Your task to perform on an android device: allow notifications from all sites in the chrome app Image 0: 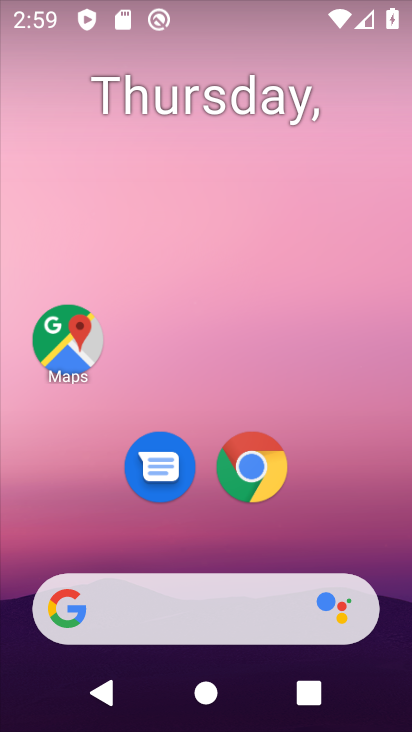
Step 0: drag from (225, 572) to (217, 137)
Your task to perform on an android device: allow notifications from all sites in the chrome app Image 1: 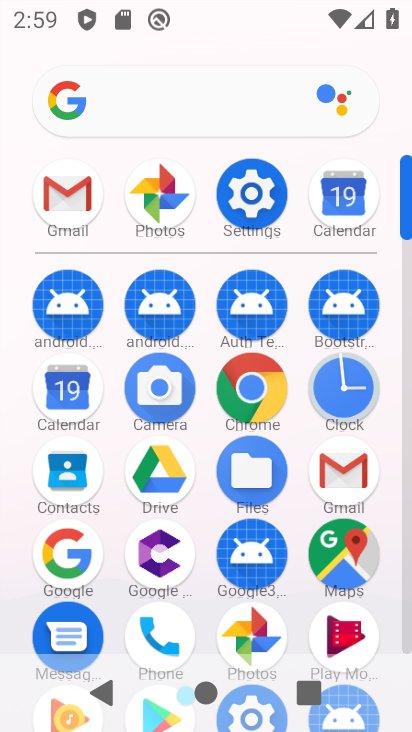
Step 1: click (265, 387)
Your task to perform on an android device: allow notifications from all sites in the chrome app Image 2: 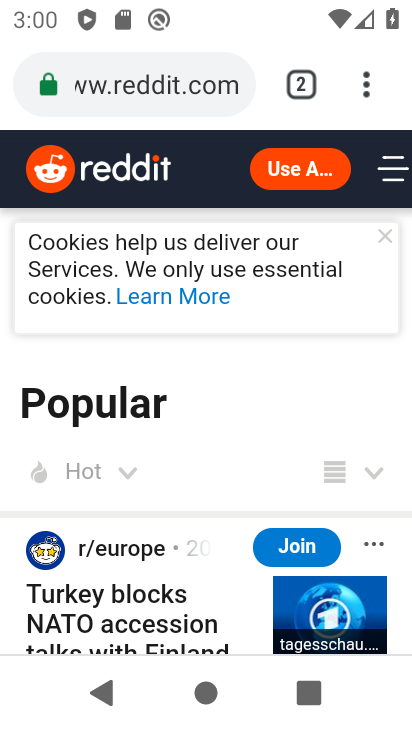
Step 2: click (376, 87)
Your task to perform on an android device: allow notifications from all sites in the chrome app Image 3: 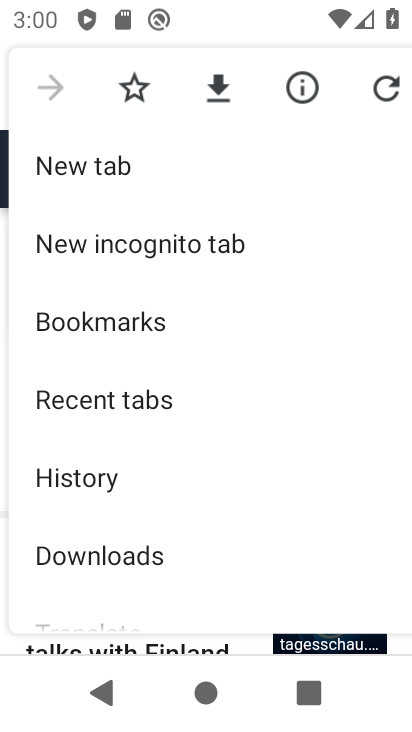
Step 3: drag from (167, 489) to (208, 97)
Your task to perform on an android device: allow notifications from all sites in the chrome app Image 4: 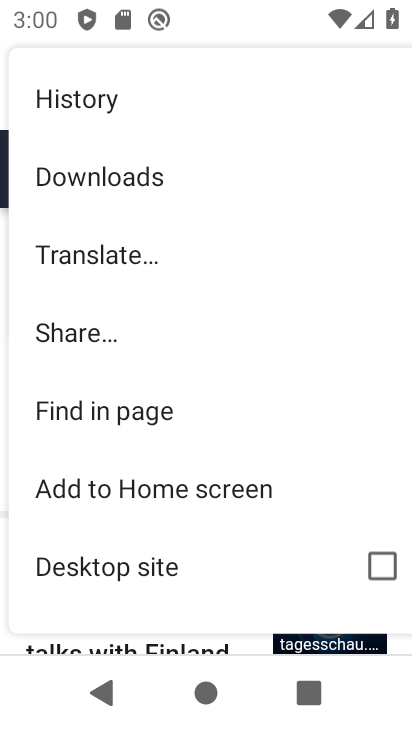
Step 4: click (197, 196)
Your task to perform on an android device: allow notifications from all sites in the chrome app Image 5: 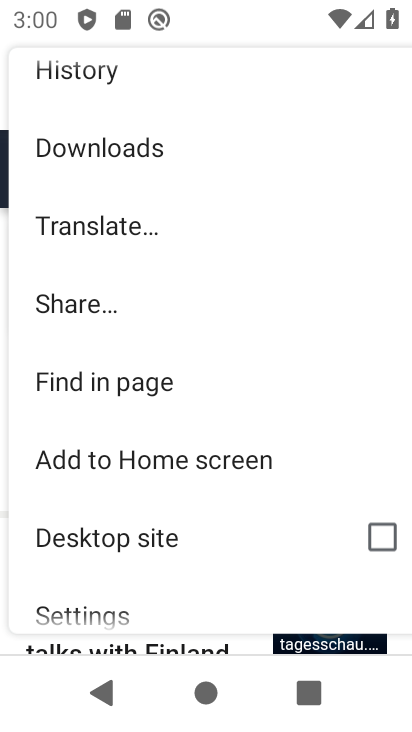
Step 5: drag from (185, 568) to (216, 154)
Your task to perform on an android device: allow notifications from all sites in the chrome app Image 6: 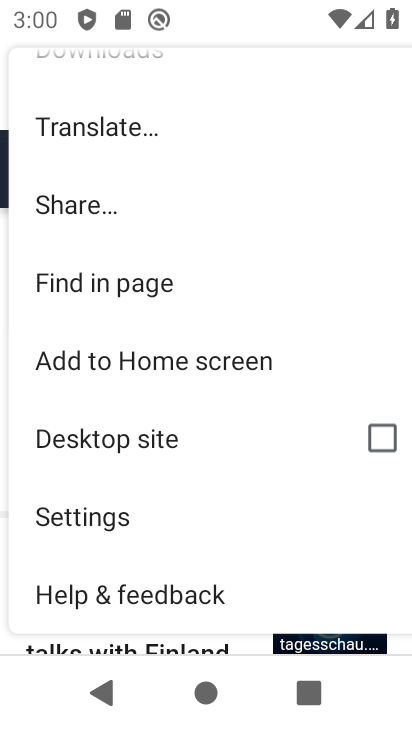
Step 6: click (122, 516)
Your task to perform on an android device: allow notifications from all sites in the chrome app Image 7: 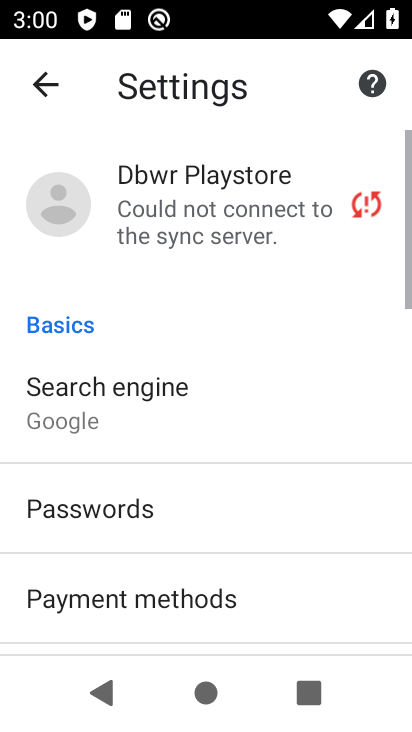
Step 7: drag from (147, 567) to (154, 43)
Your task to perform on an android device: allow notifications from all sites in the chrome app Image 8: 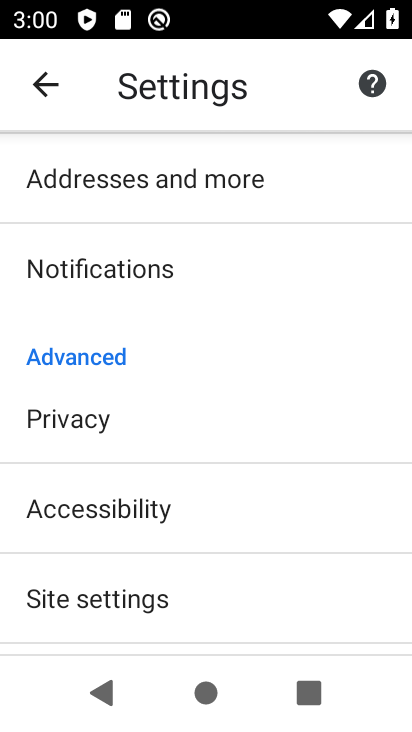
Step 8: click (176, 590)
Your task to perform on an android device: allow notifications from all sites in the chrome app Image 9: 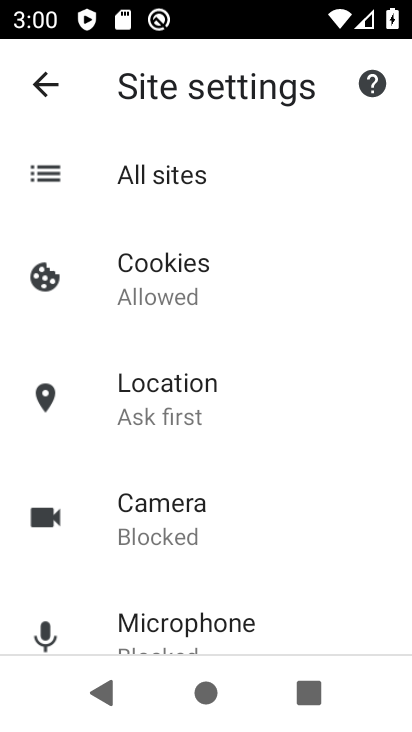
Step 9: drag from (192, 565) to (181, 81)
Your task to perform on an android device: allow notifications from all sites in the chrome app Image 10: 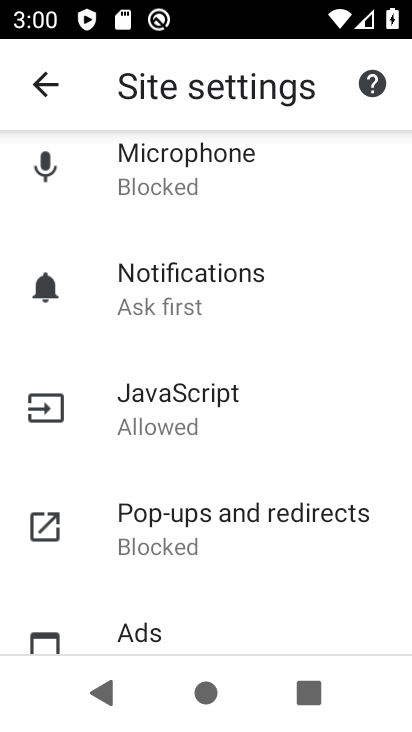
Step 10: click (137, 302)
Your task to perform on an android device: allow notifications from all sites in the chrome app Image 11: 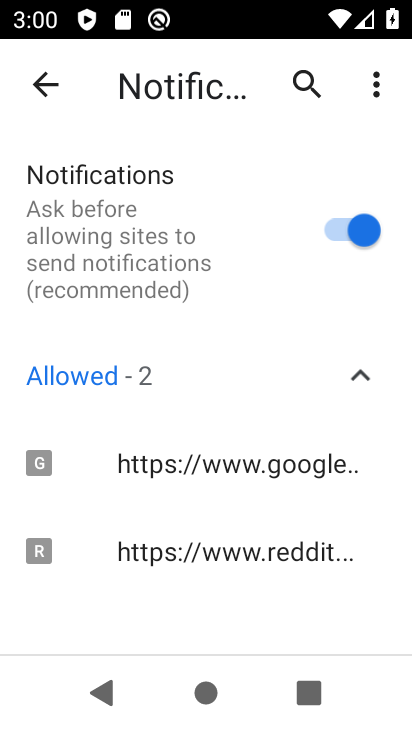
Step 11: task complete